Your task to perform on an android device: Empty the shopping cart on amazon.com. Image 0: 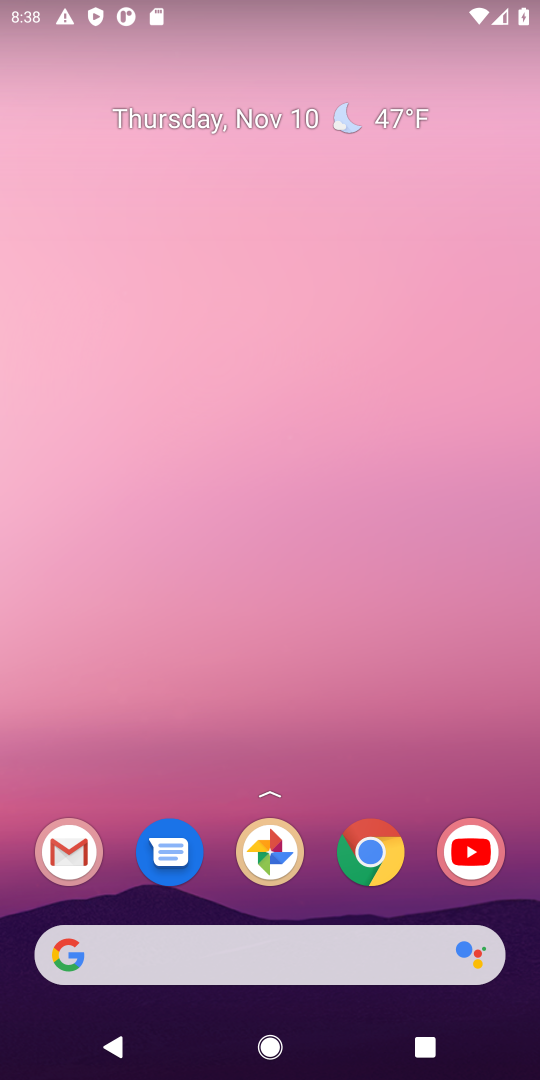
Step 0: click (373, 855)
Your task to perform on an android device: Empty the shopping cart on amazon.com. Image 1: 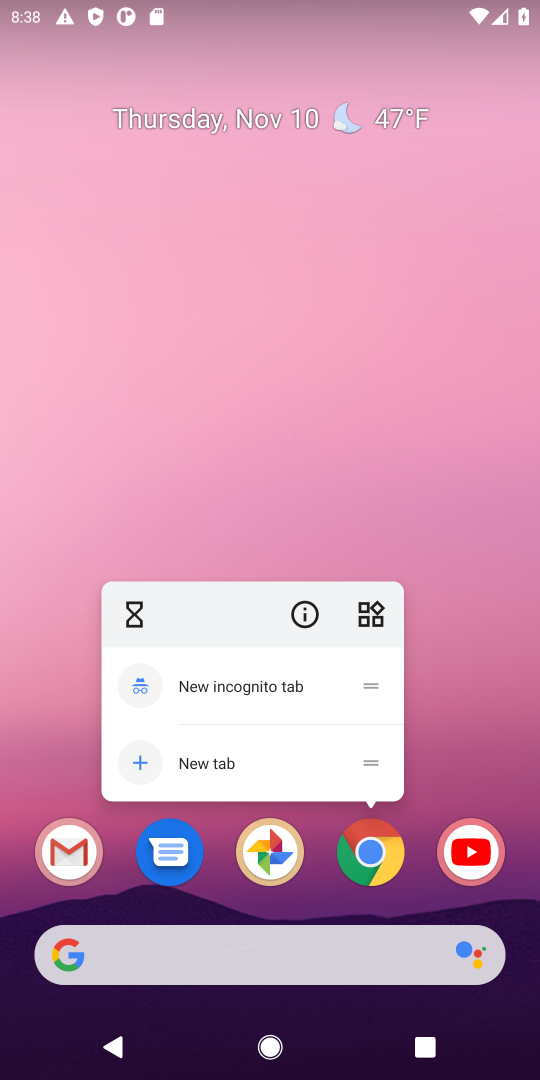
Step 1: click (373, 855)
Your task to perform on an android device: Empty the shopping cart on amazon.com. Image 2: 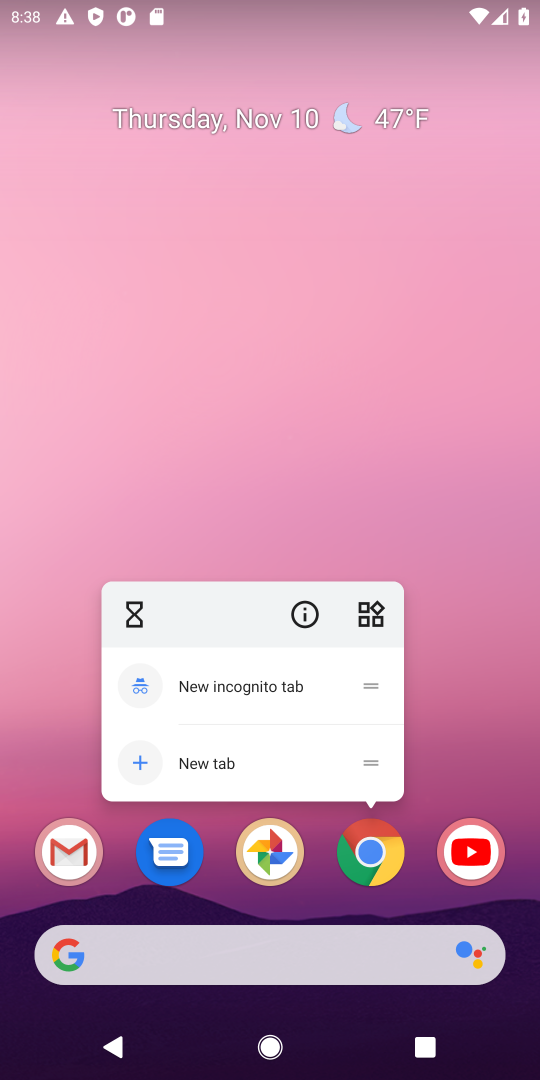
Step 2: click (373, 857)
Your task to perform on an android device: Empty the shopping cart on amazon.com. Image 3: 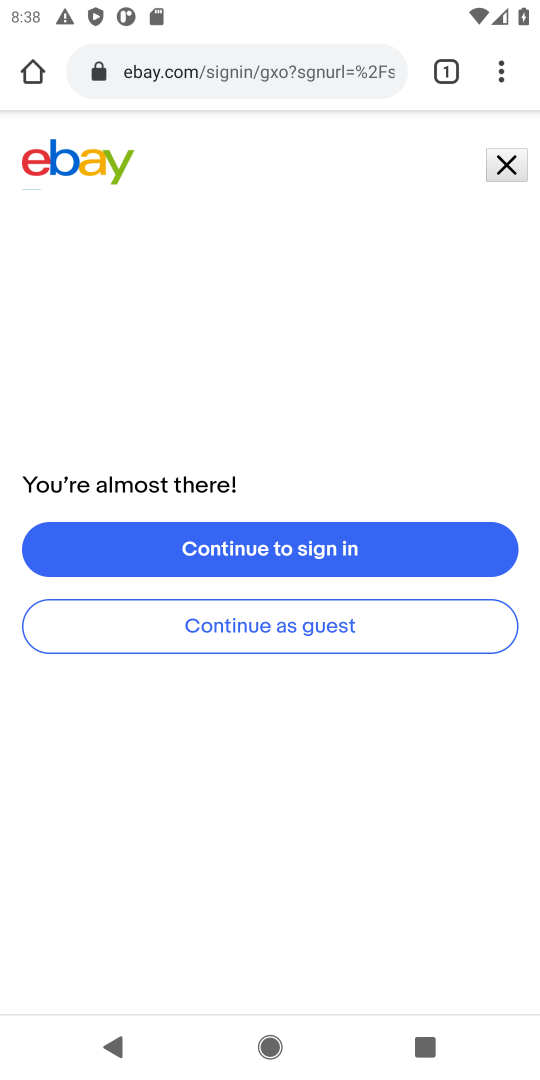
Step 3: click (285, 68)
Your task to perform on an android device: Empty the shopping cart on amazon.com. Image 4: 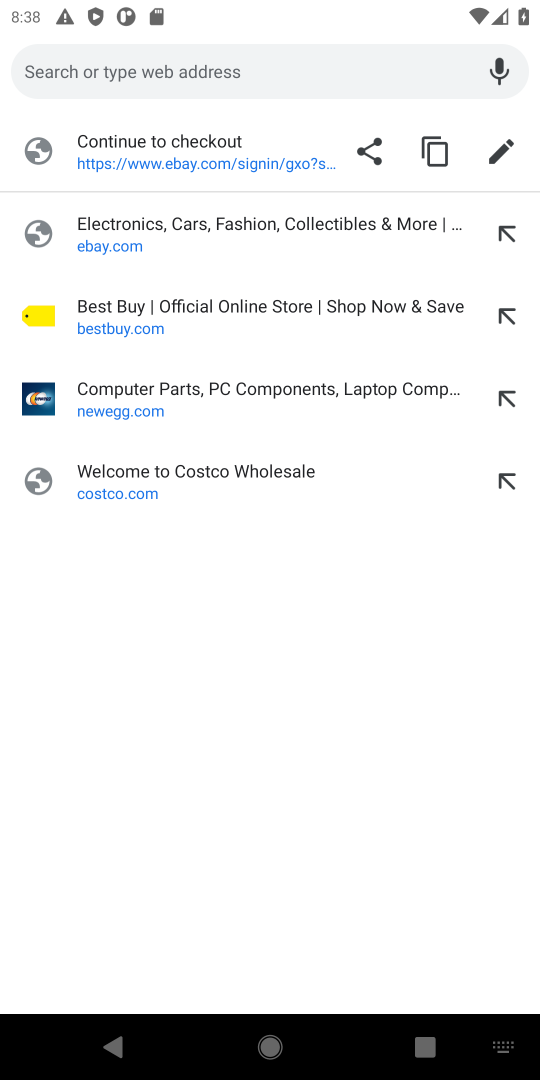
Step 4: type "amazon.com"
Your task to perform on an android device: Empty the shopping cart on amazon.com. Image 5: 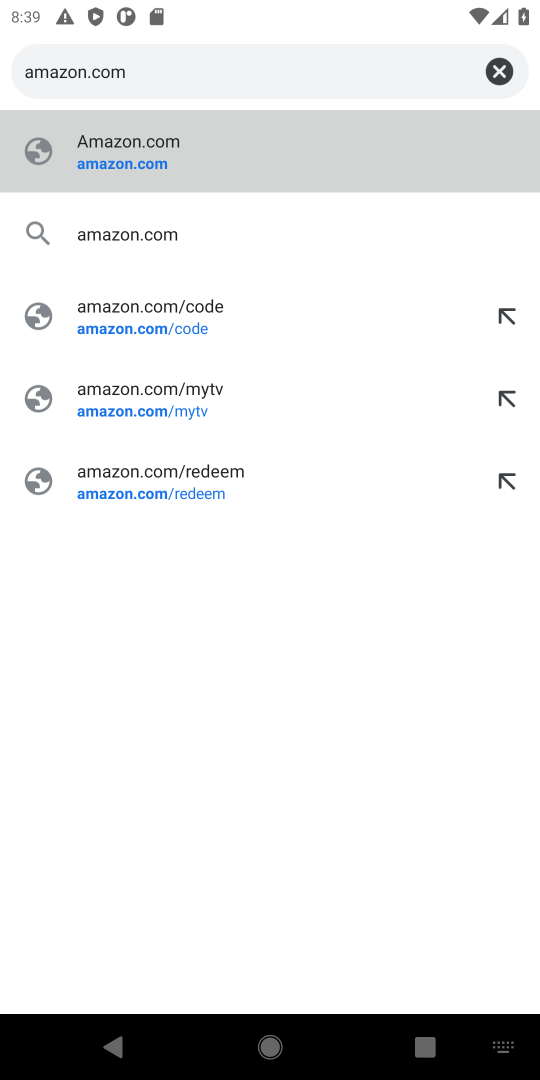
Step 5: press enter
Your task to perform on an android device: Empty the shopping cart on amazon.com. Image 6: 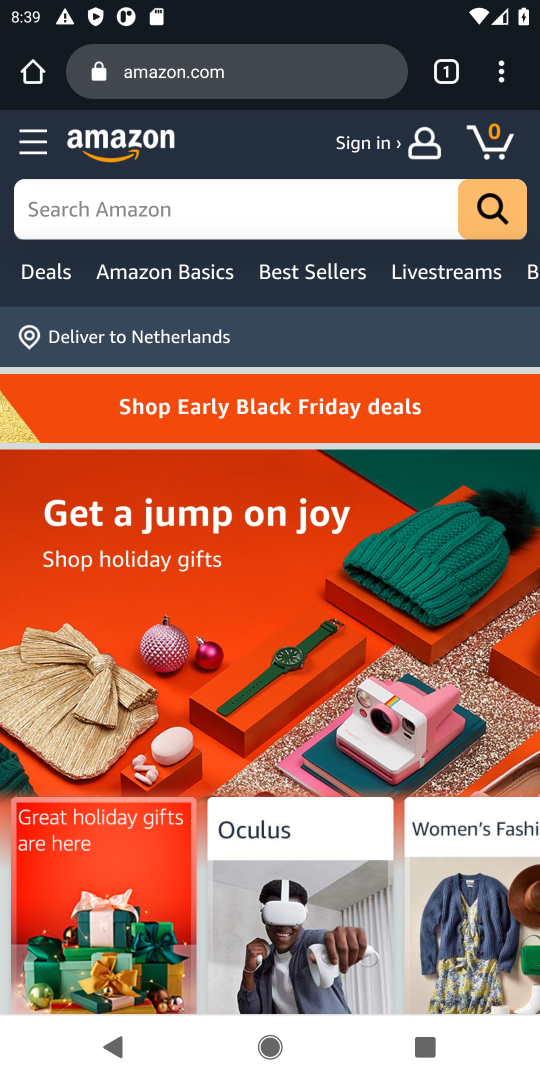
Step 6: click (503, 143)
Your task to perform on an android device: Empty the shopping cart on amazon.com. Image 7: 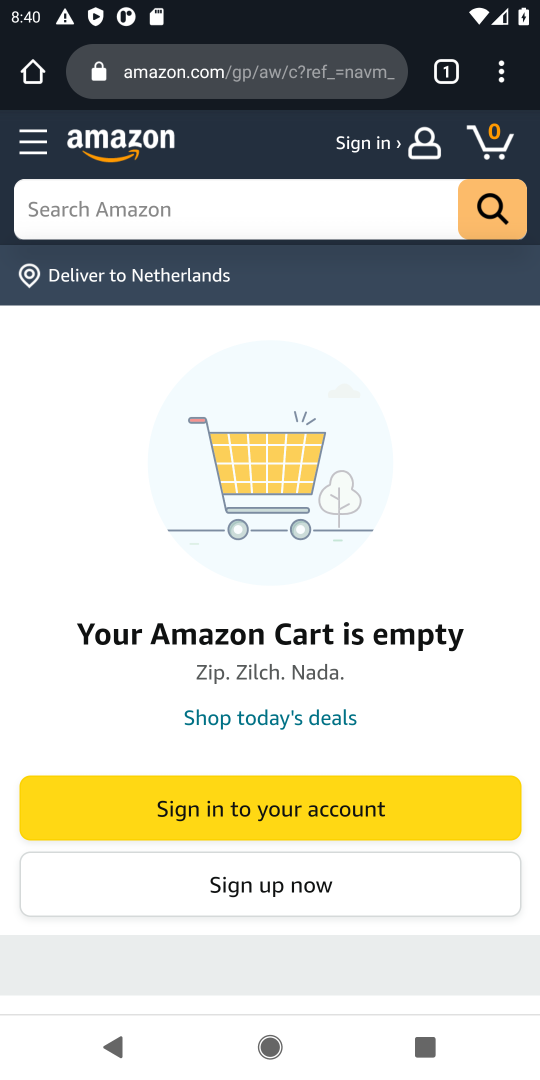
Step 7: task complete